Your task to perform on an android device: Find coffee shops on Maps Image 0: 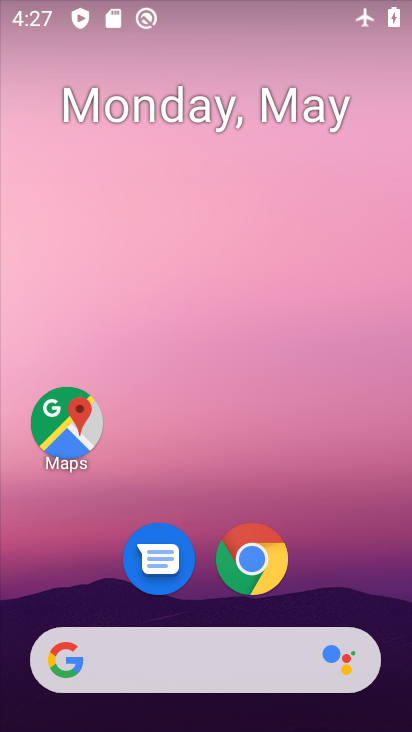
Step 0: drag from (391, 535) to (271, 13)
Your task to perform on an android device: Find coffee shops on Maps Image 1: 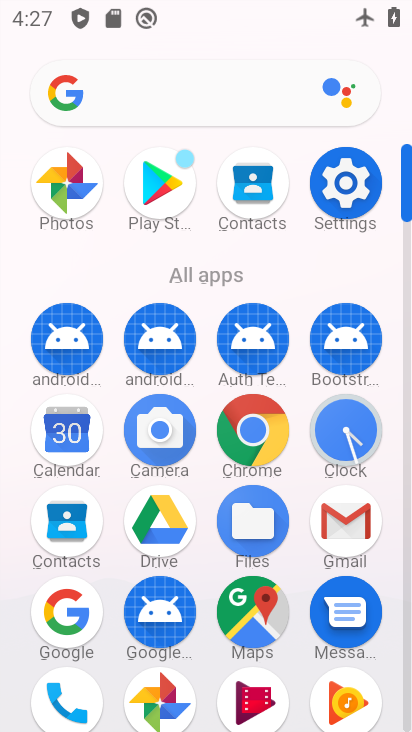
Step 1: drag from (13, 530) to (42, 219)
Your task to perform on an android device: Find coffee shops on Maps Image 2: 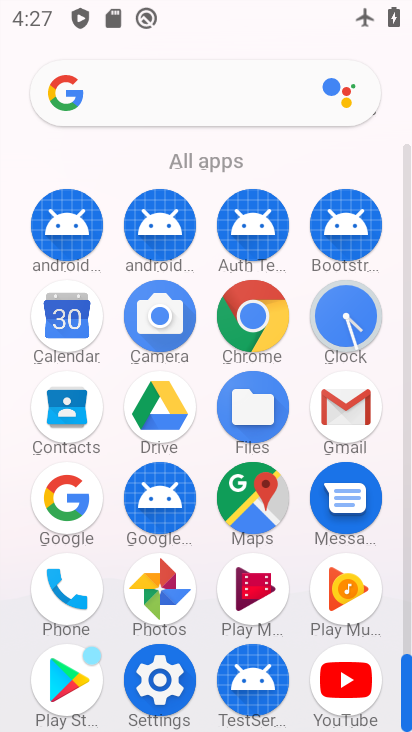
Step 2: click (250, 489)
Your task to perform on an android device: Find coffee shops on Maps Image 3: 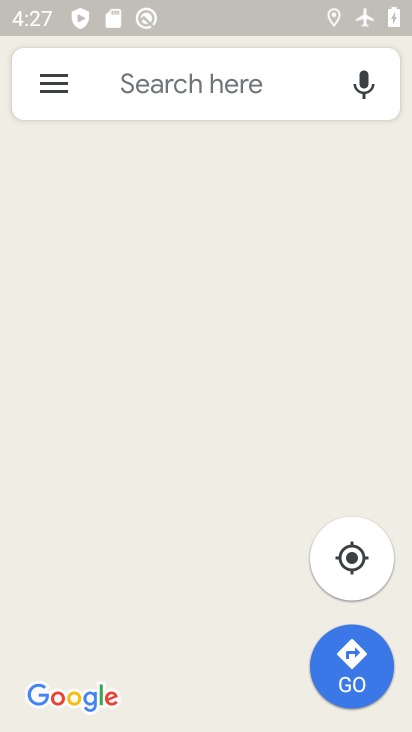
Step 3: click (123, 82)
Your task to perform on an android device: Find coffee shops on Maps Image 4: 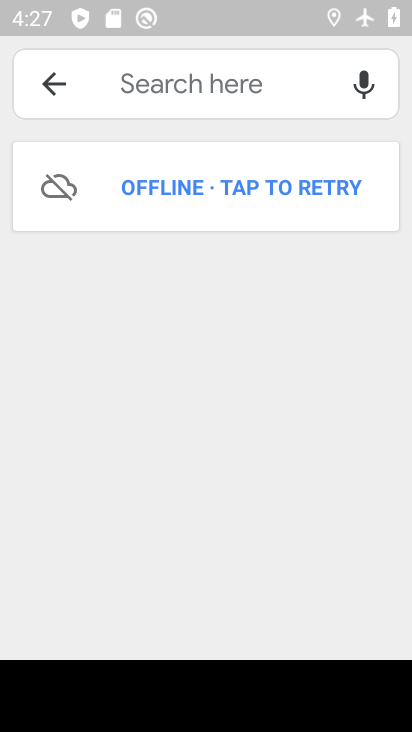
Step 4: type "coffee"
Your task to perform on an android device: Find coffee shops on Maps Image 5: 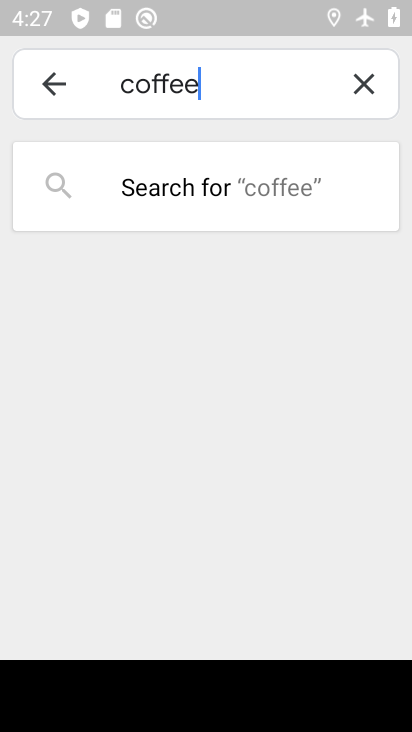
Step 5: type ""
Your task to perform on an android device: Find coffee shops on Maps Image 6: 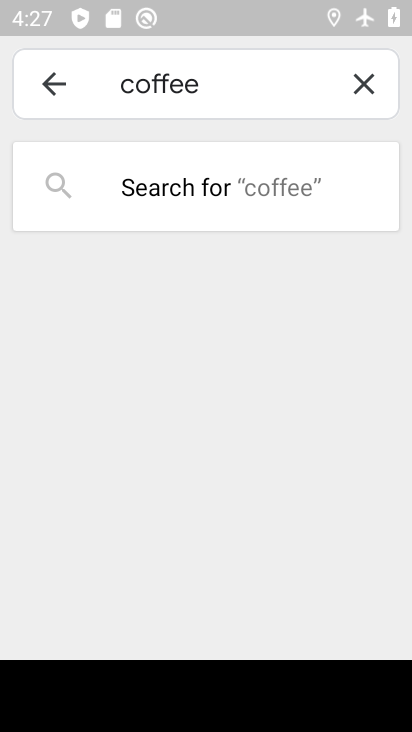
Step 6: click (183, 188)
Your task to perform on an android device: Find coffee shops on Maps Image 7: 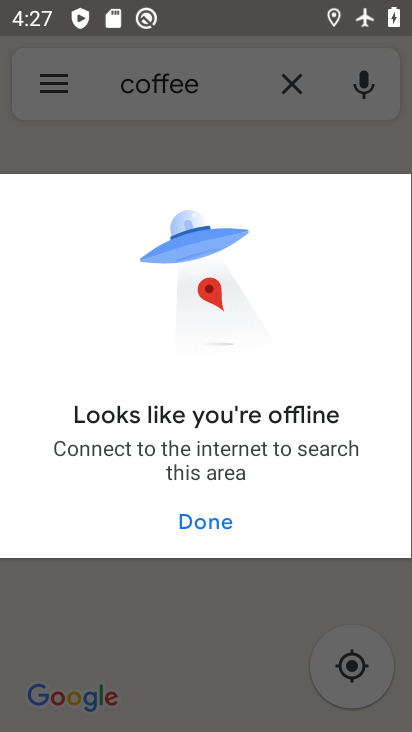
Step 7: task complete